Your task to perform on an android device: Show me productivity apps on the Play Store Image 0: 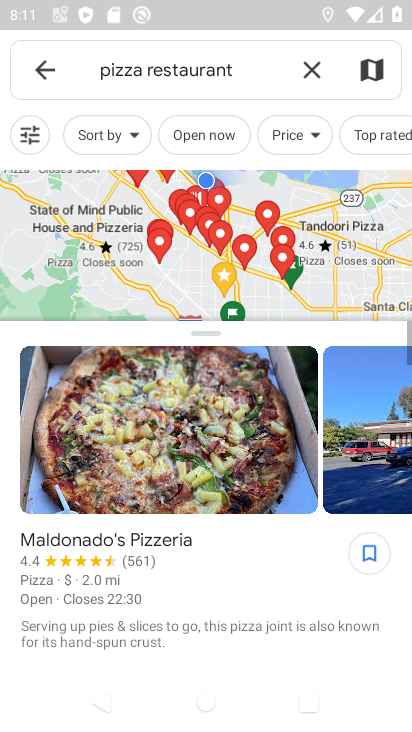
Step 0: press home button
Your task to perform on an android device: Show me productivity apps on the Play Store Image 1: 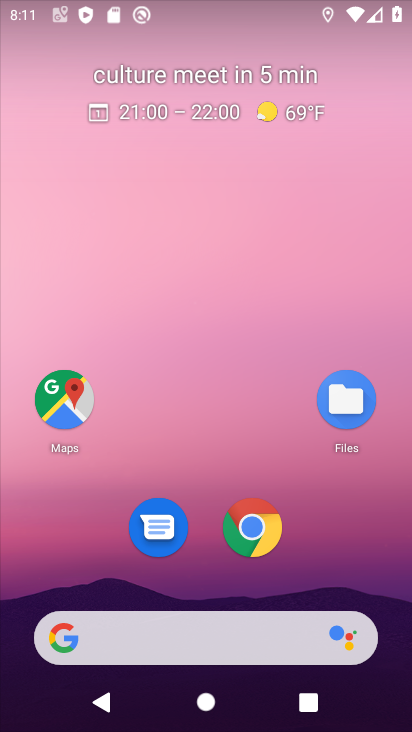
Step 1: drag from (326, 561) to (295, 179)
Your task to perform on an android device: Show me productivity apps on the Play Store Image 2: 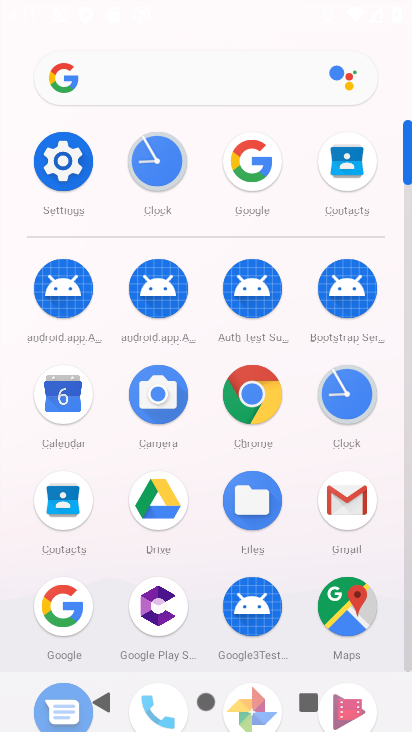
Step 2: drag from (206, 579) to (216, 315)
Your task to perform on an android device: Show me productivity apps on the Play Store Image 3: 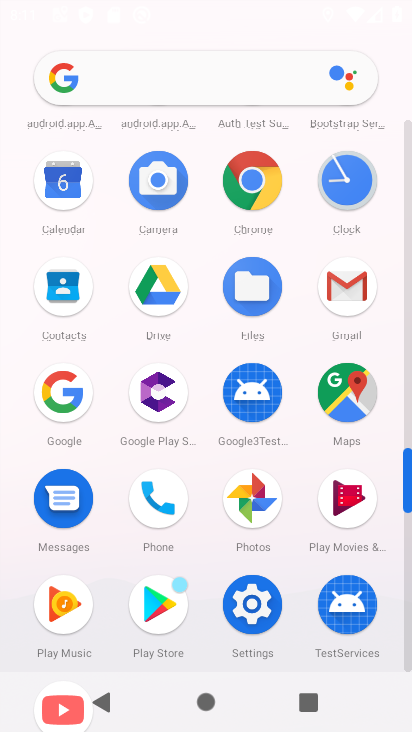
Step 3: click (155, 609)
Your task to perform on an android device: Show me productivity apps on the Play Store Image 4: 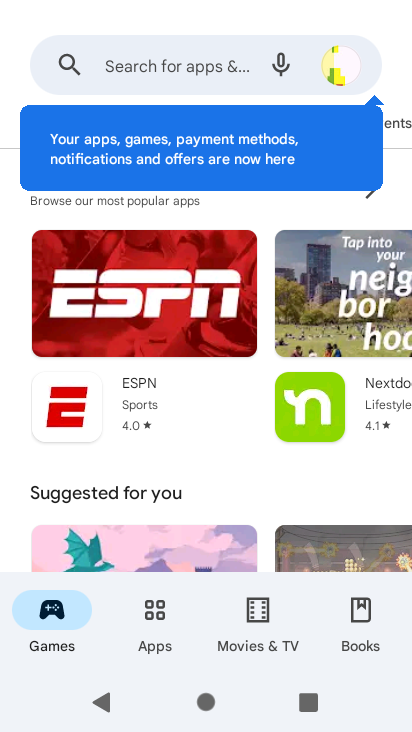
Step 4: click (155, 638)
Your task to perform on an android device: Show me productivity apps on the Play Store Image 5: 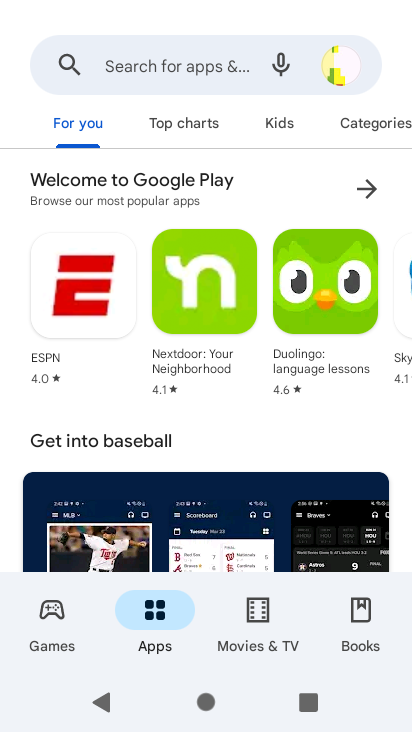
Step 5: click (346, 122)
Your task to perform on an android device: Show me productivity apps on the Play Store Image 6: 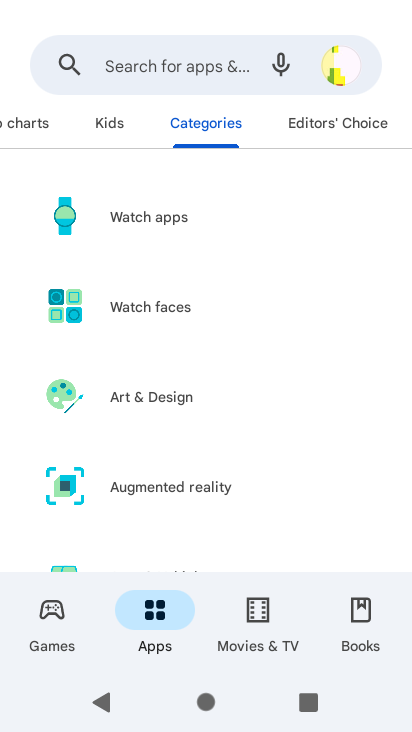
Step 6: drag from (268, 481) to (294, 0)
Your task to perform on an android device: Show me productivity apps on the Play Store Image 7: 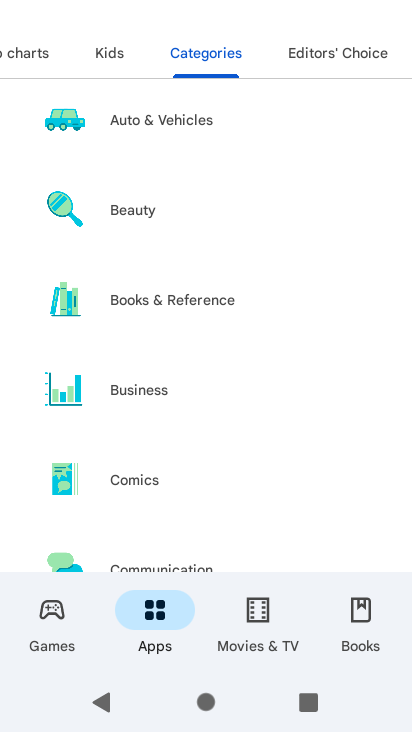
Step 7: drag from (256, 519) to (247, 50)
Your task to perform on an android device: Show me productivity apps on the Play Store Image 8: 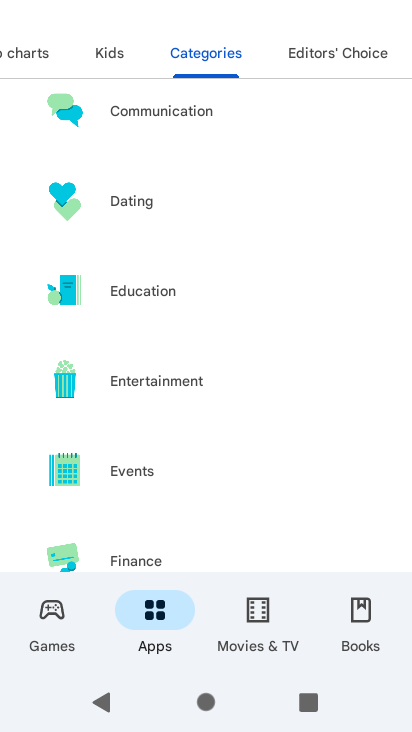
Step 8: drag from (240, 532) to (223, 76)
Your task to perform on an android device: Show me productivity apps on the Play Store Image 9: 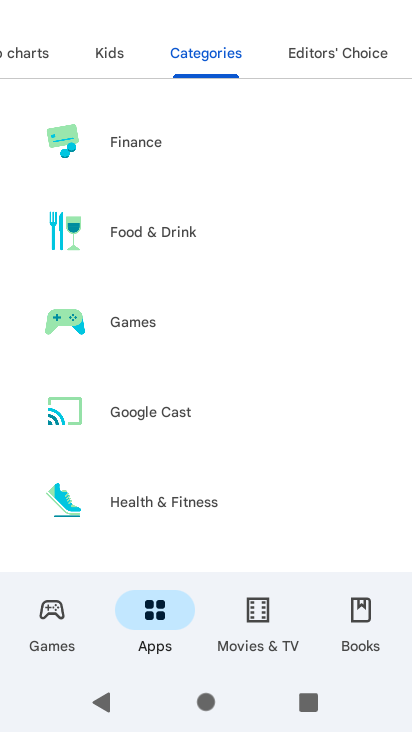
Step 9: drag from (232, 524) to (265, 15)
Your task to perform on an android device: Show me productivity apps on the Play Store Image 10: 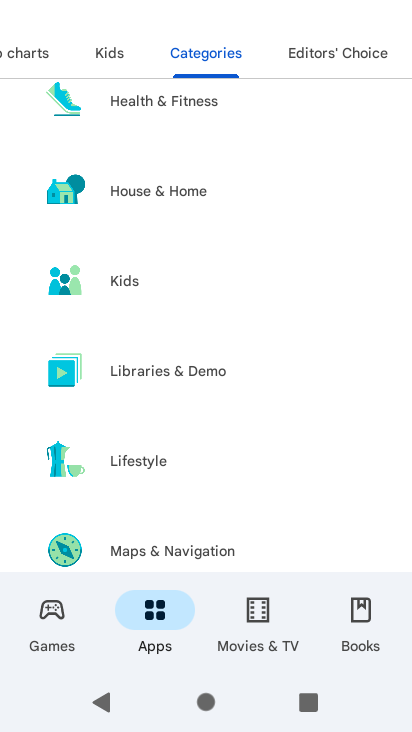
Step 10: drag from (226, 529) to (223, 71)
Your task to perform on an android device: Show me productivity apps on the Play Store Image 11: 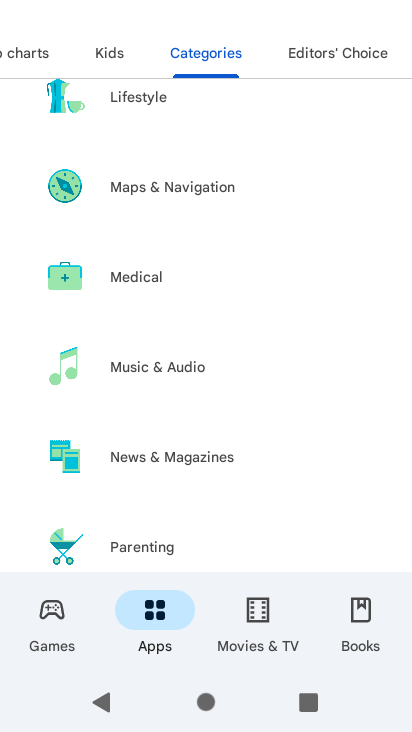
Step 11: click (223, 65)
Your task to perform on an android device: Show me productivity apps on the Play Store Image 12: 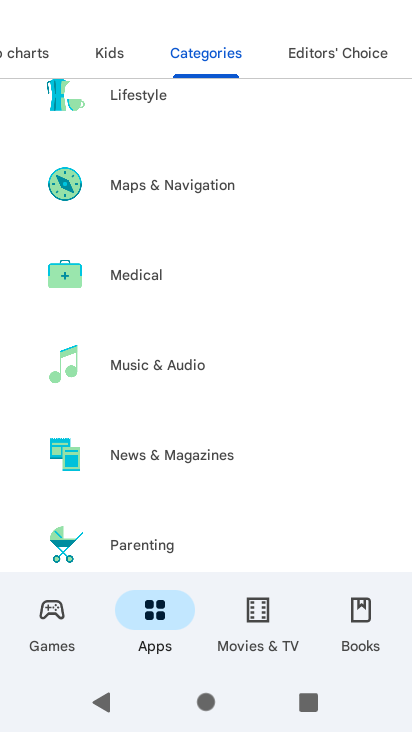
Step 12: drag from (208, 512) to (245, 125)
Your task to perform on an android device: Show me productivity apps on the Play Store Image 13: 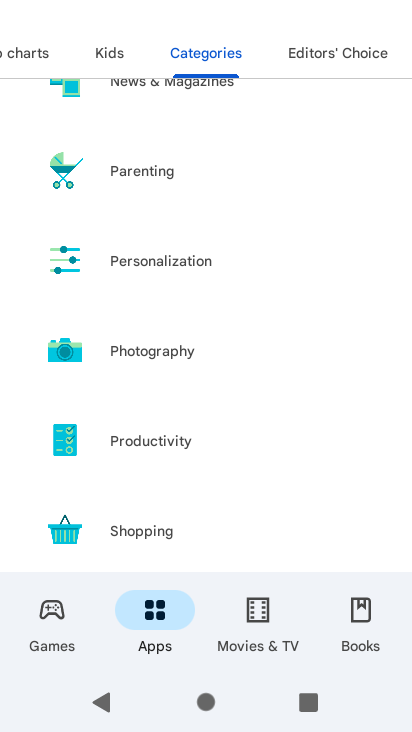
Step 13: click (158, 435)
Your task to perform on an android device: Show me productivity apps on the Play Store Image 14: 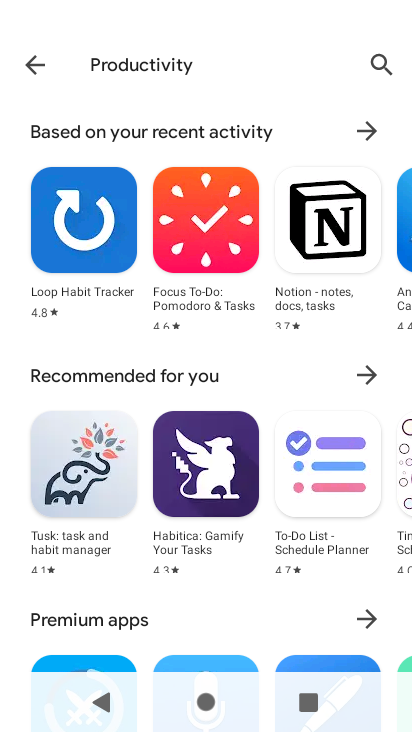
Step 14: task complete